Your task to perform on an android device: open app "Google Play Music" Image 0: 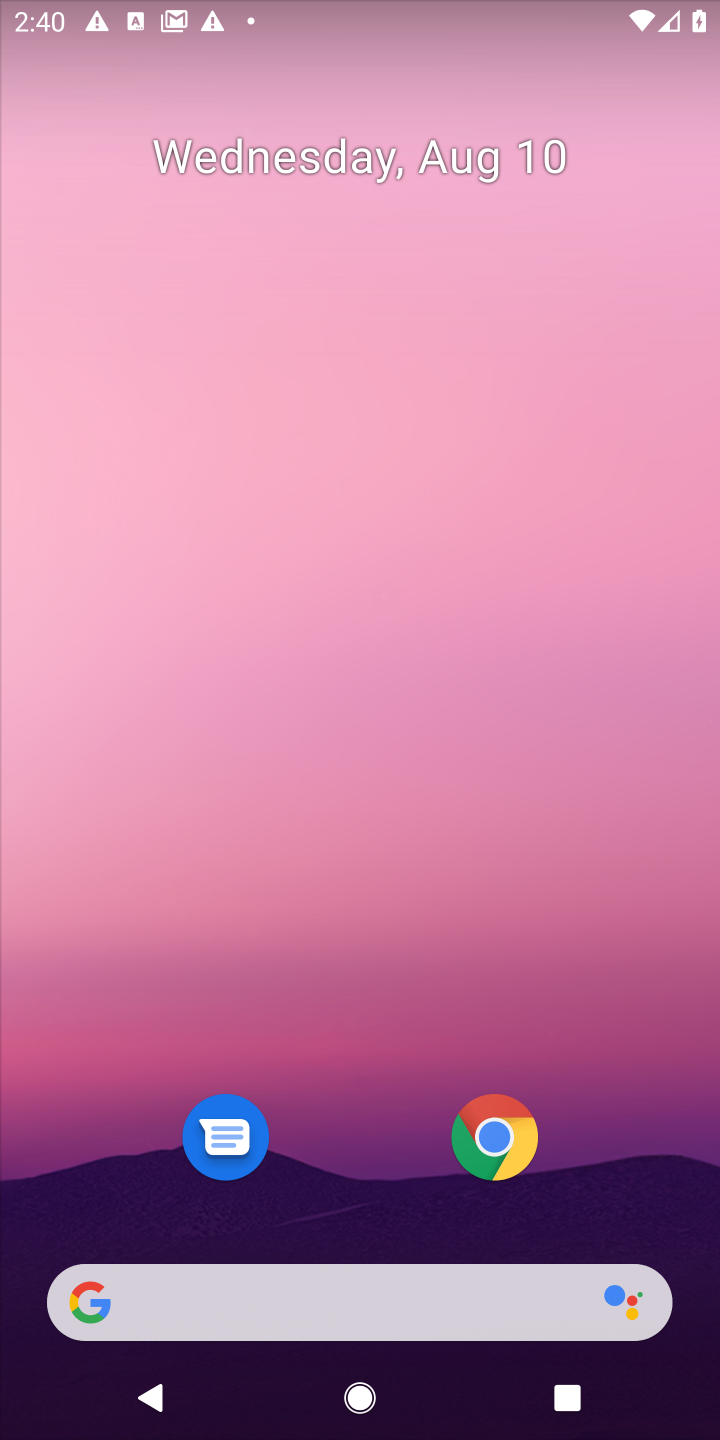
Step 0: press home button
Your task to perform on an android device: open app "Google Play Music" Image 1: 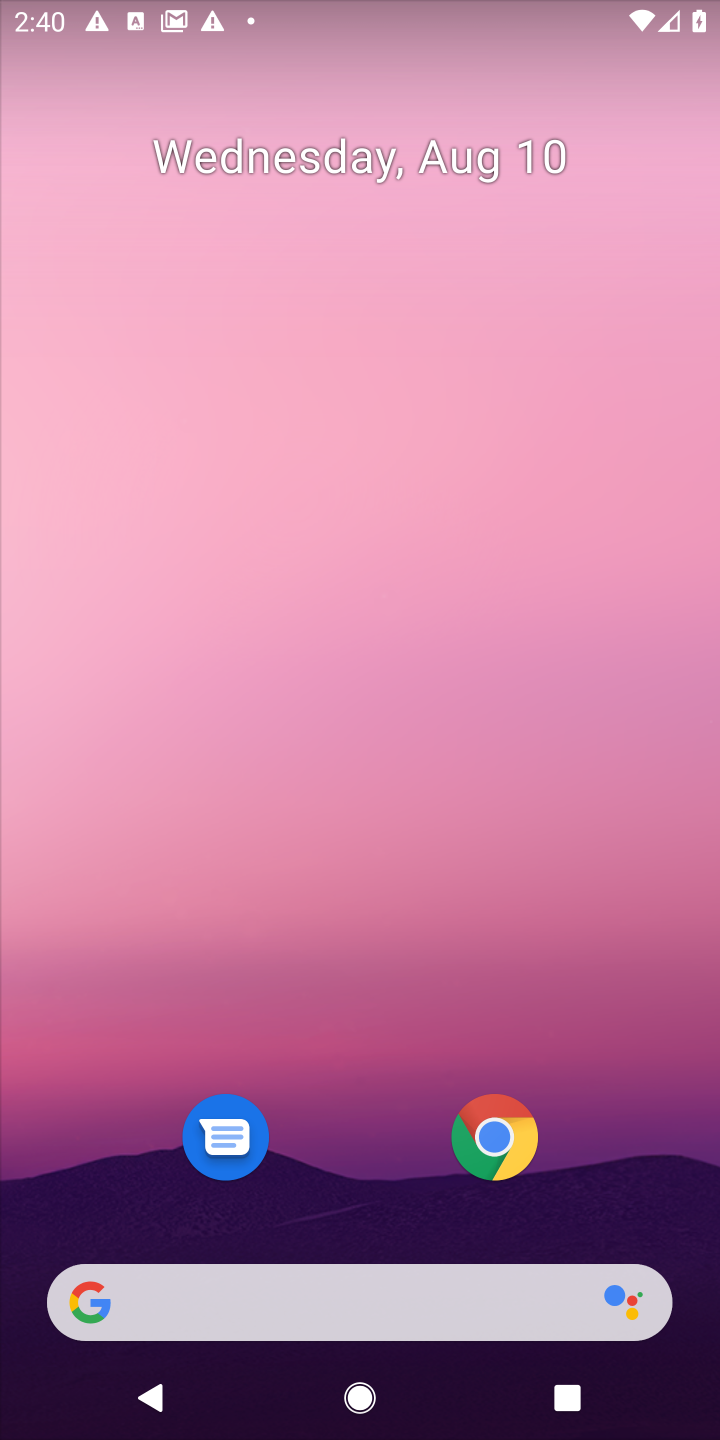
Step 1: drag from (362, 1206) to (477, 4)
Your task to perform on an android device: open app "Google Play Music" Image 2: 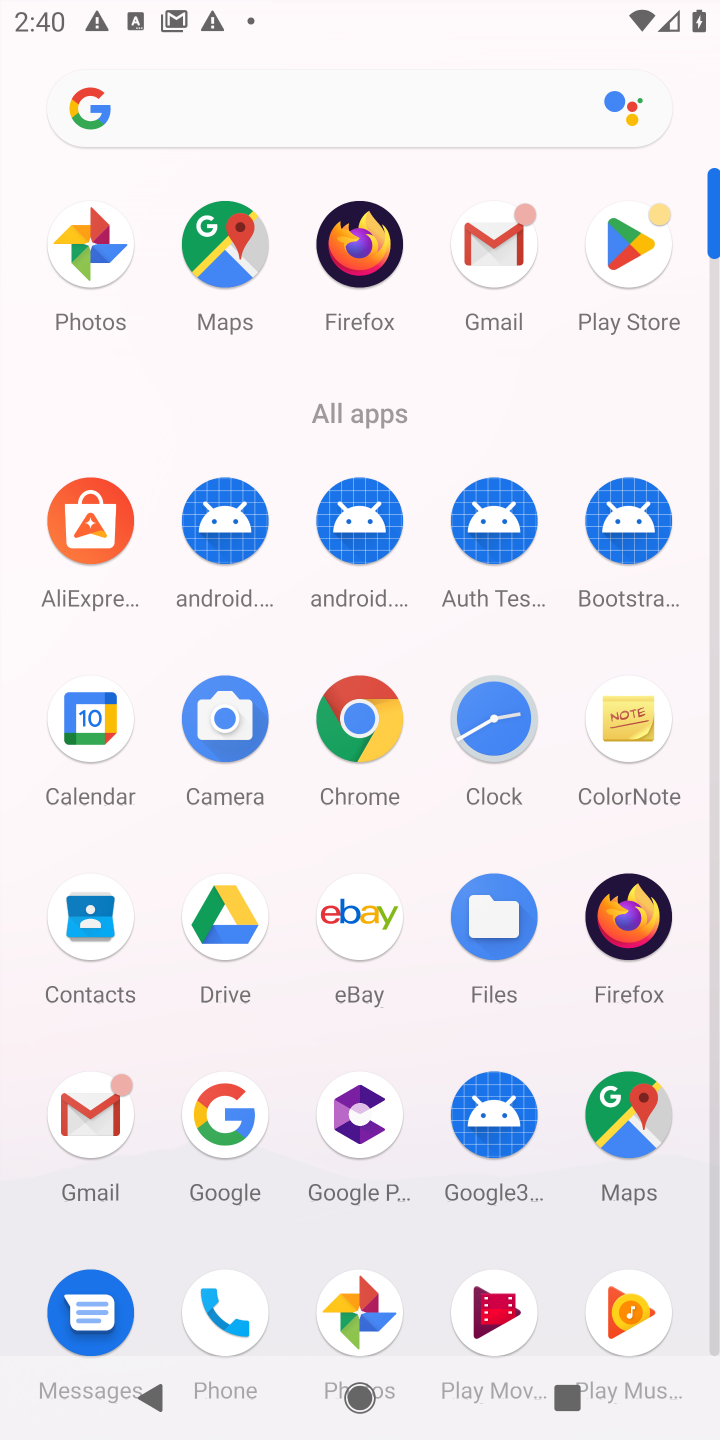
Step 2: click (632, 281)
Your task to perform on an android device: open app "Google Play Music" Image 3: 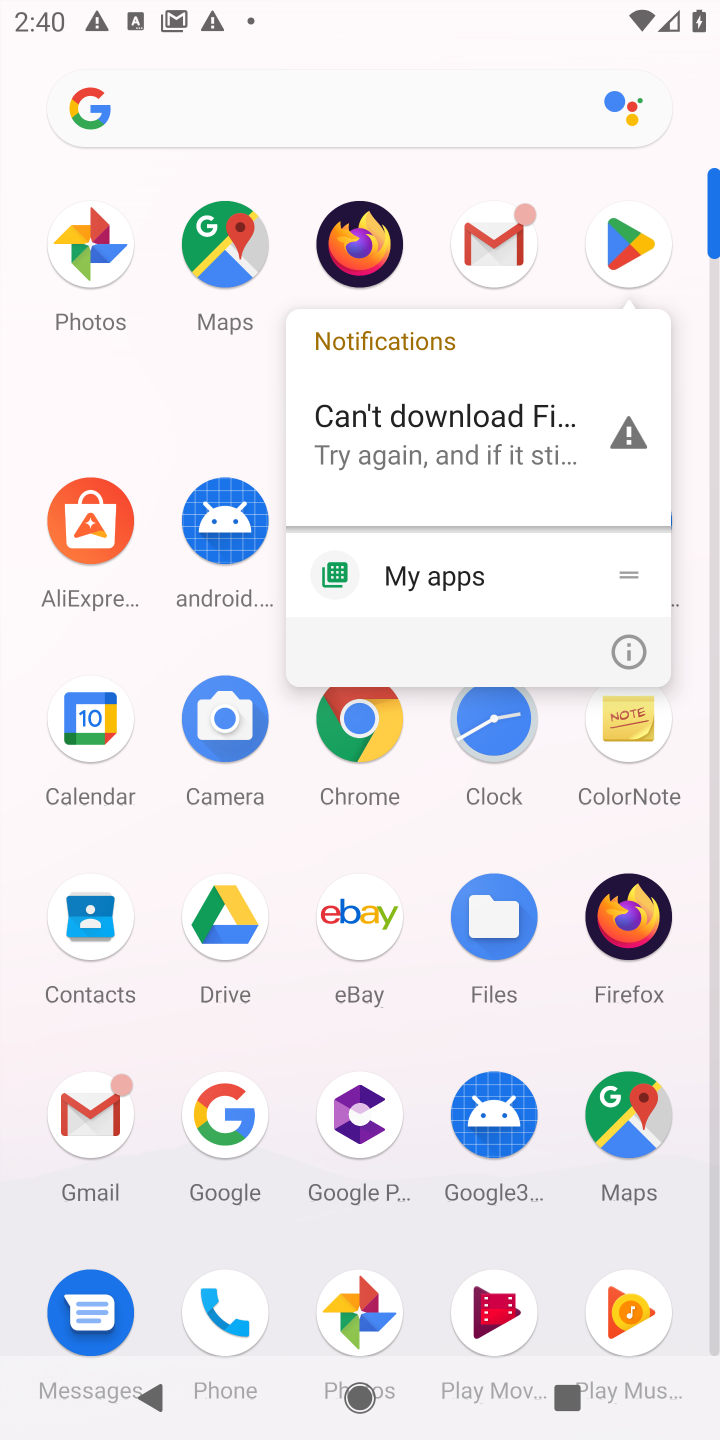
Step 3: click (625, 260)
Your task to perform on an android device: open app "Google Play Music" Image 4: 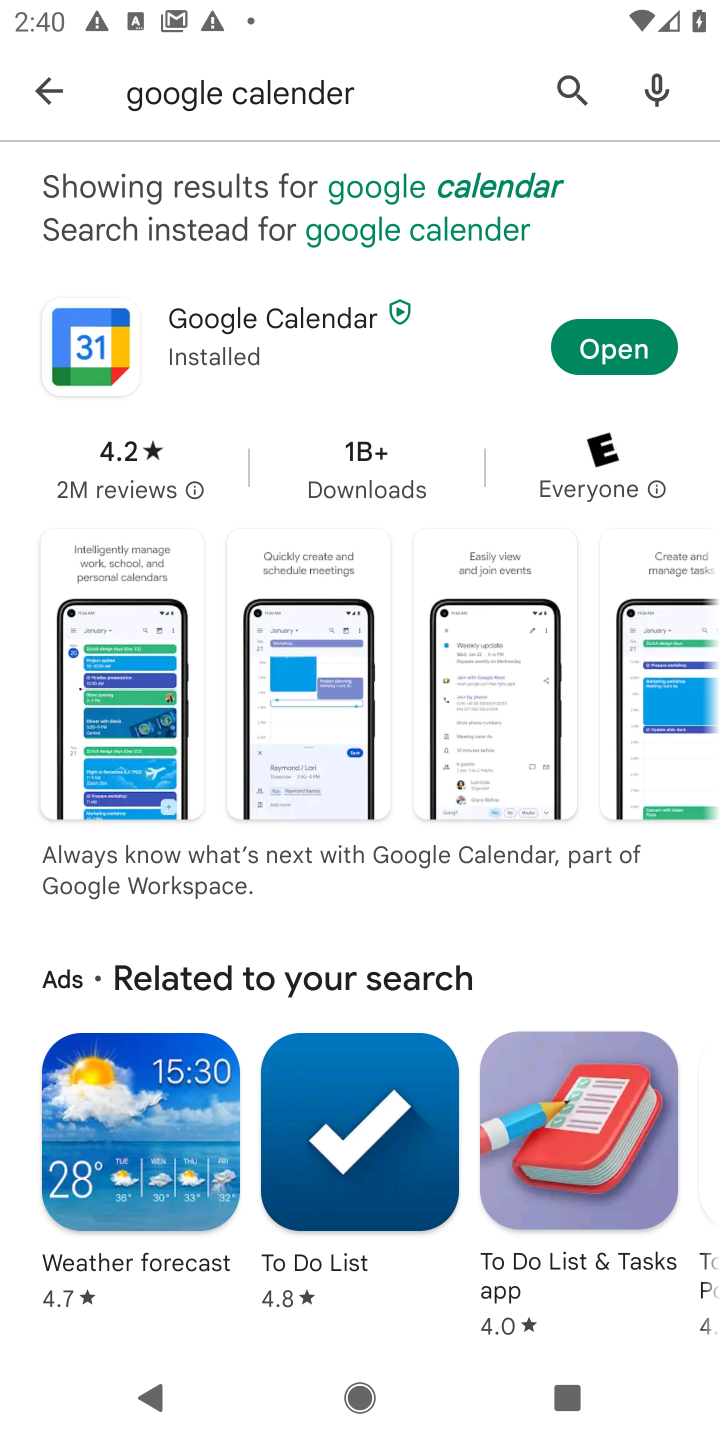
Step 4: click (308, 95)
Your task to perform on an android device: open app "Google Play Music" Image 5: 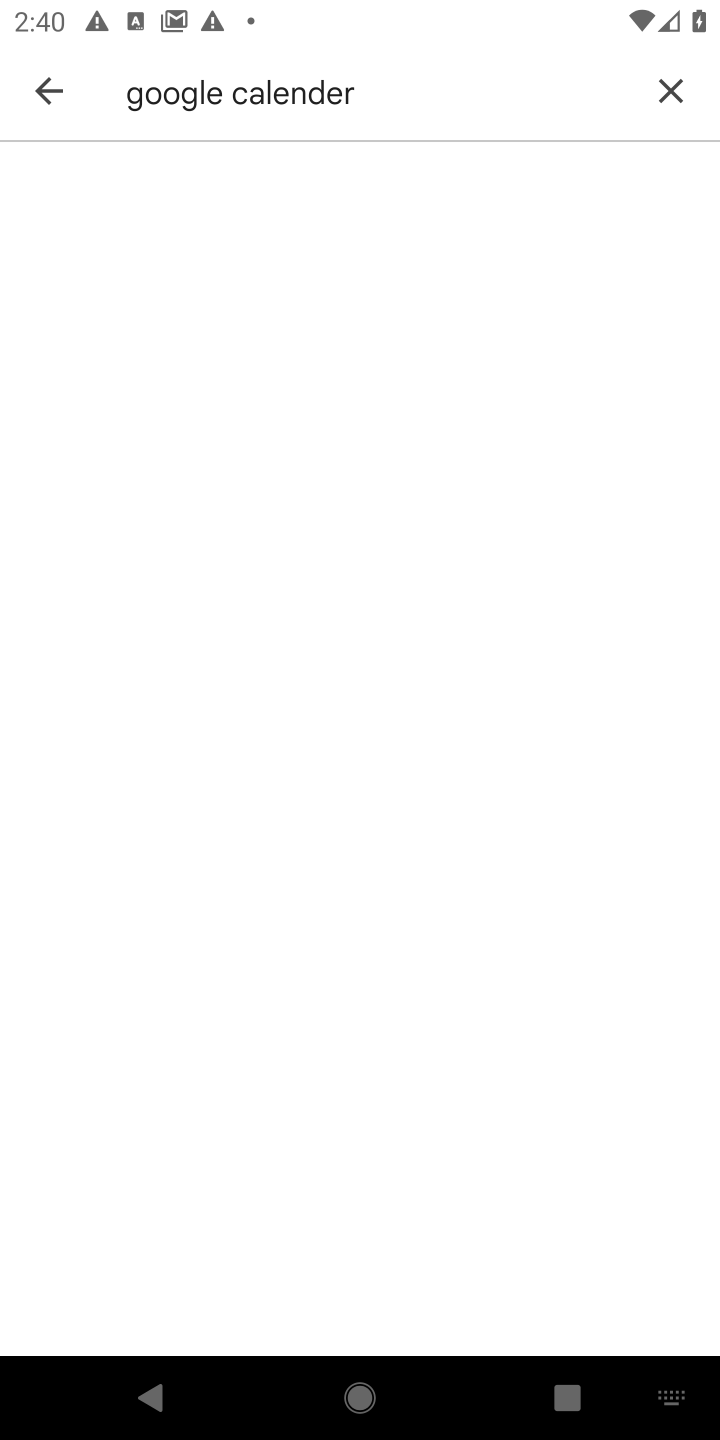
Step 5: click (288, 91)
Your task to perform on an android device: open app "Google Play Music" Image 6: 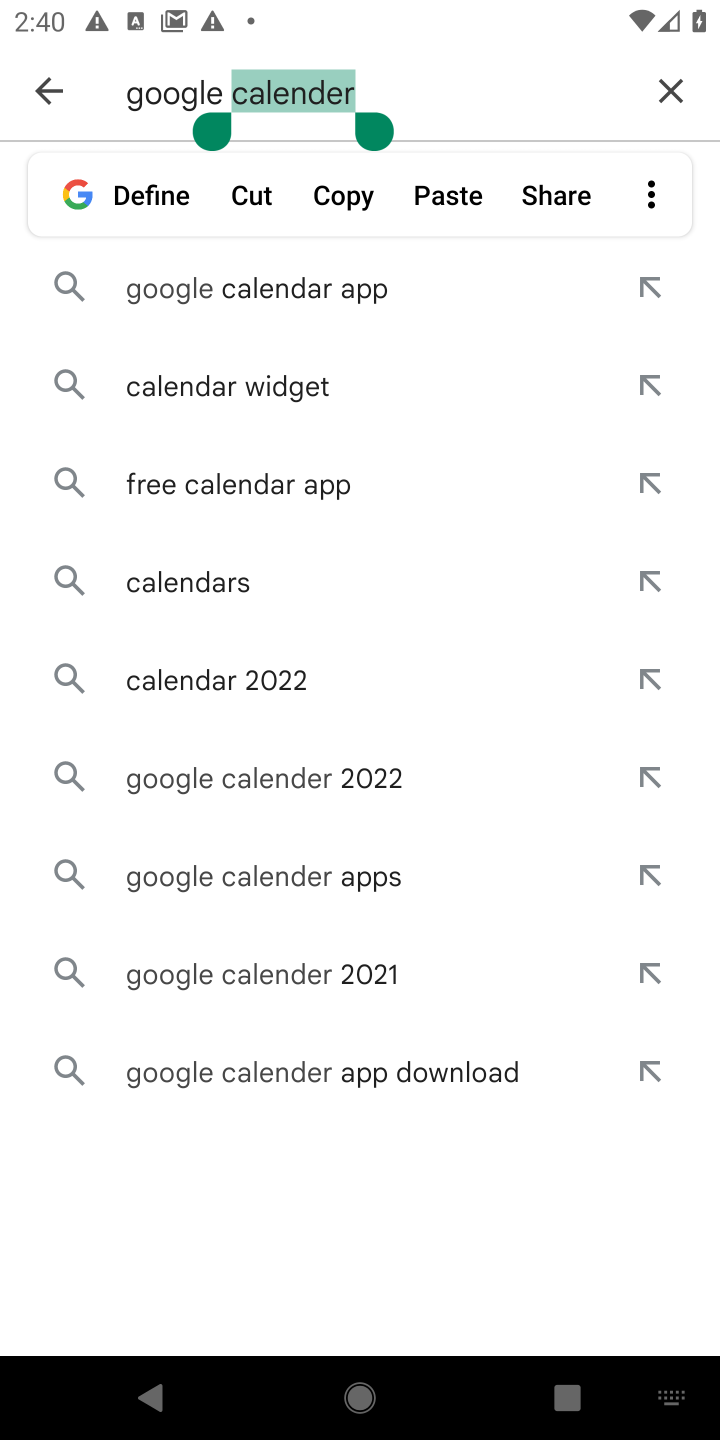
Step 6: type "play music"
Your task to perform on an android device: open app "Google Play Music" Image 7: 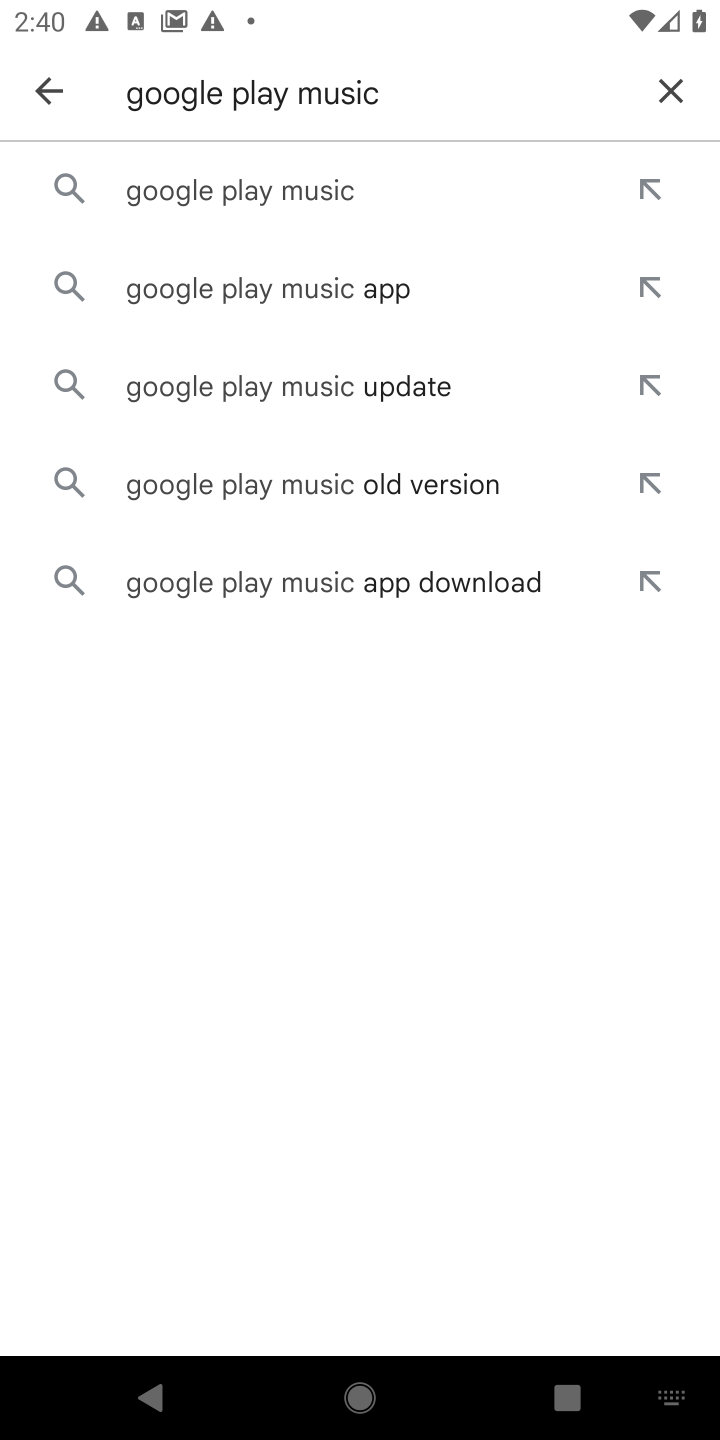
Step 7: click (307, 197)
Your task to perform on an android device: open app "Google Play Music" Image 8: 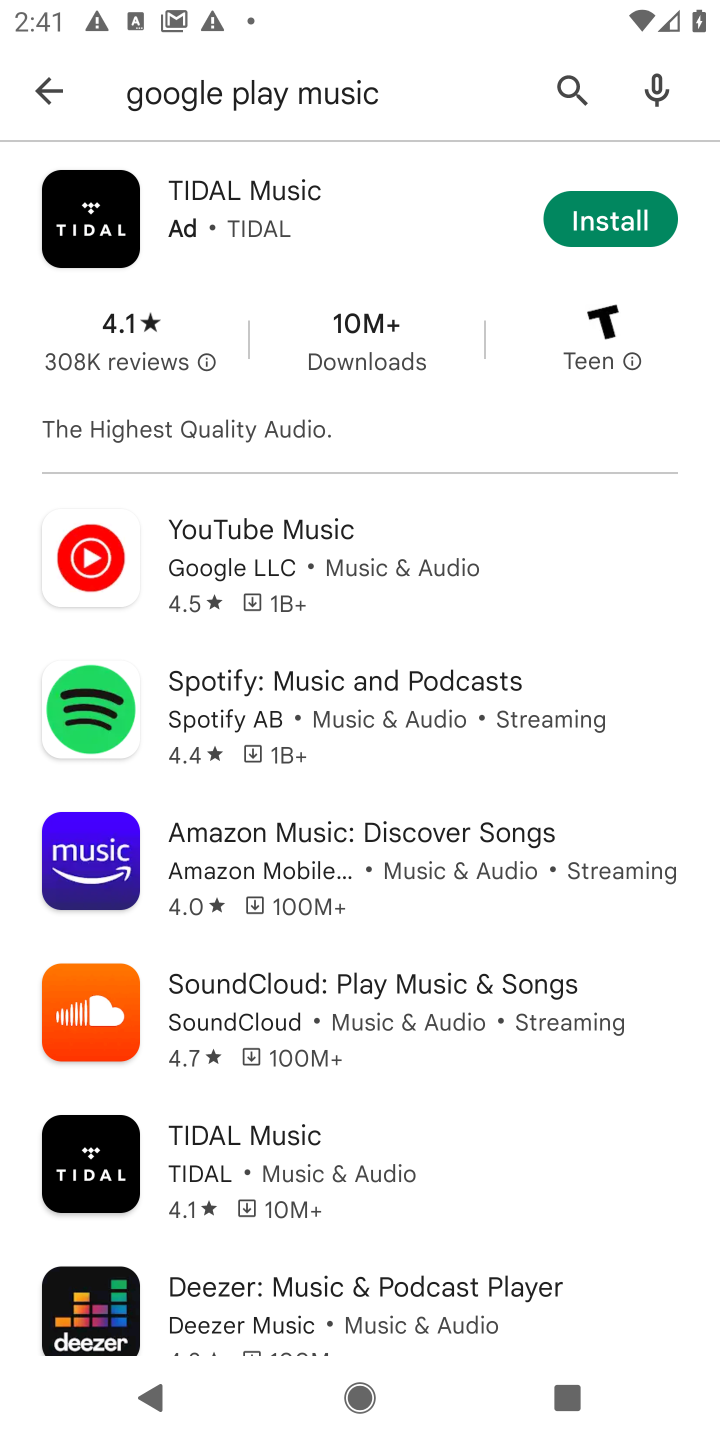
Step 8: task complete